Your task to perform on an android device: Open the calendar and show me this week's events? Image 0: 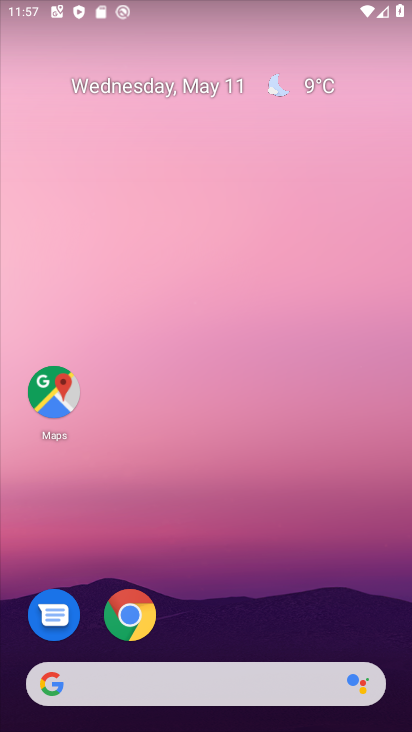
Step 0: drag from (269, 629) to (280, 140)
Your task to perform on an android device: Open the calendar and show me this week's events? Image 1: 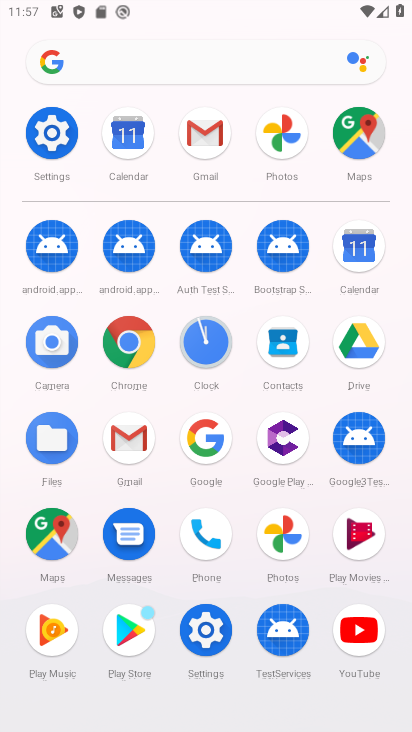
Step 1: click (361, 252)
Your task to perform on an android device: Open the calendar and show me this week's events? Image 2: 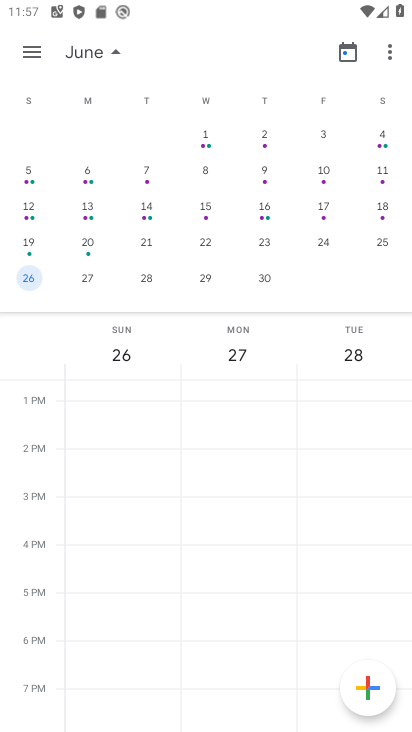
Step 2: drag from (19, 174) to (17, 211)
Your task to perform on an android device: Open the calendar and show me this week's events? Image 3: 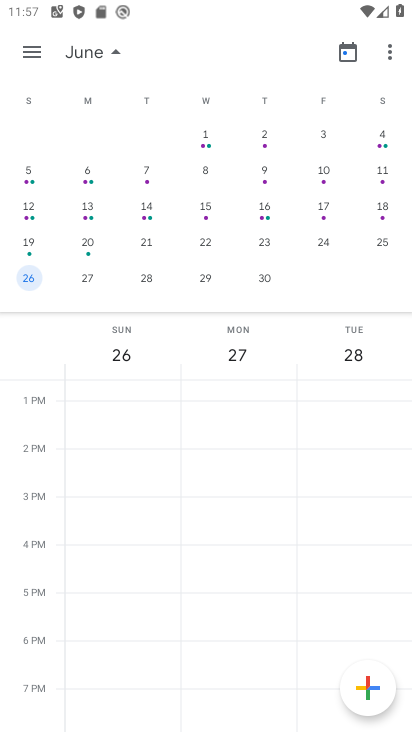
Step 3: drag from (47, 195) to (381, 204)
Your task to perform on an android device: Open the calendar and show me this week's events? Image 4: 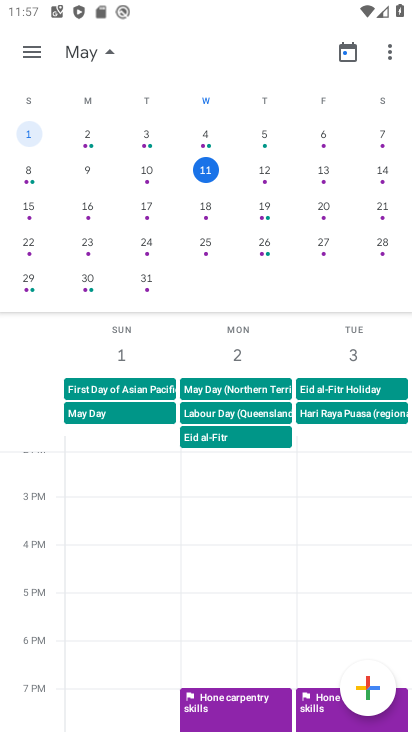
Step 4: click (208, 164)
Your task to perform on an android device: Open the calendar and show me this week's events? Image 5: 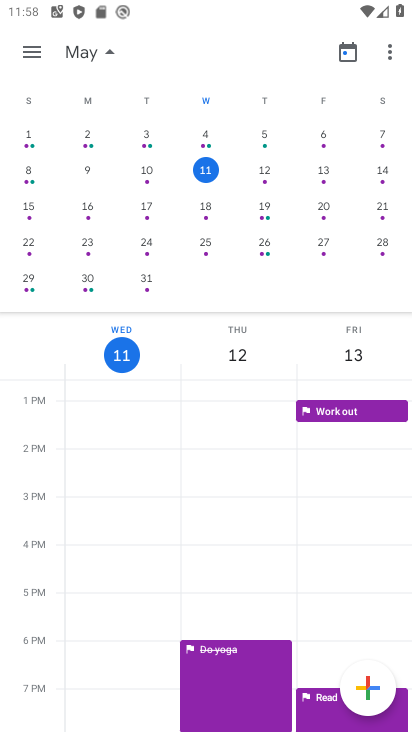
Step 5: click (20, 53)
Your task to perform on an android device: Open the calendar and show me this week's events? Image 6: 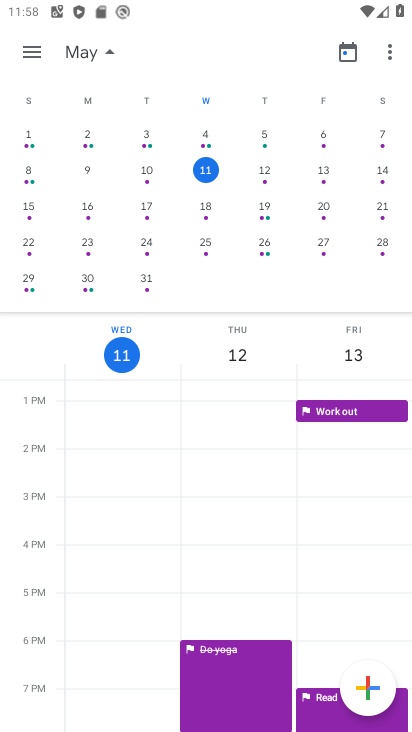
Step 6: click (29, 48)
Your task to perform on an android device: Open the calendar and show me this week's events? Image 7: 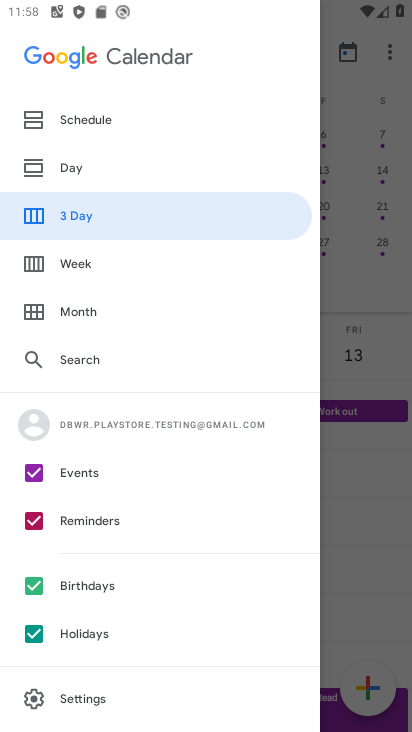
Step 7: click (353, 99)
Your task to perform on an android device: Open the calendar and show me this week's events? Image 8: 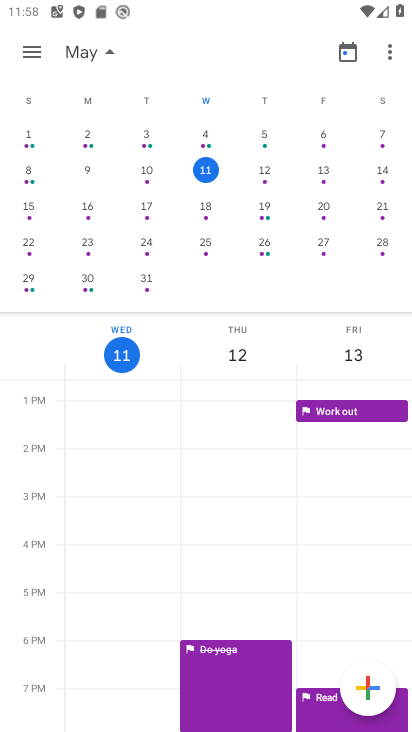
Step 8: task complete